Your task to perform on an android device: open chrome and create a bookmark for the current page Image 0: 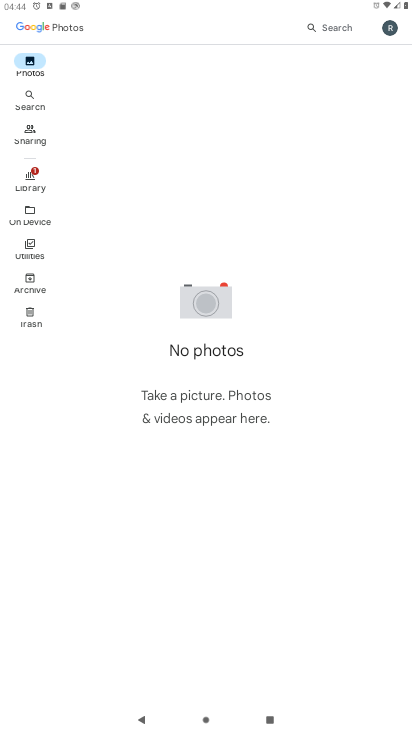
Step 0: press home button
Your task to perform on an android device: open chrome and create a bookmark for the current page Image 1: 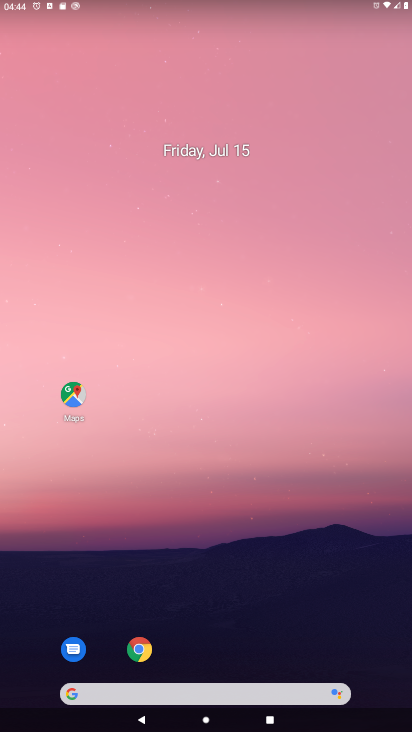
Step 1: click (138, 650)
Your task to perform on an android device: open chrome and create a bookmark for the current page Image 2: 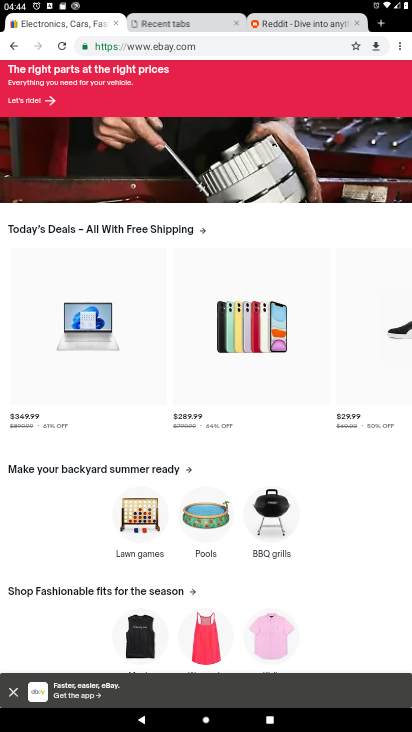
Step 2: click (398, 48)
Your task to perform on an android device: open chrome and create a bookmark for the current page Image 3: 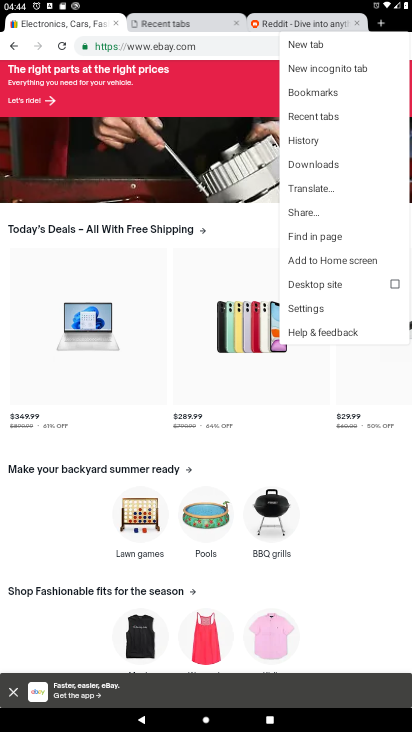
Step 3: click (248, 40)
Your task to perform on an android device: open chrome and create a bookmark for the current page Image 4: 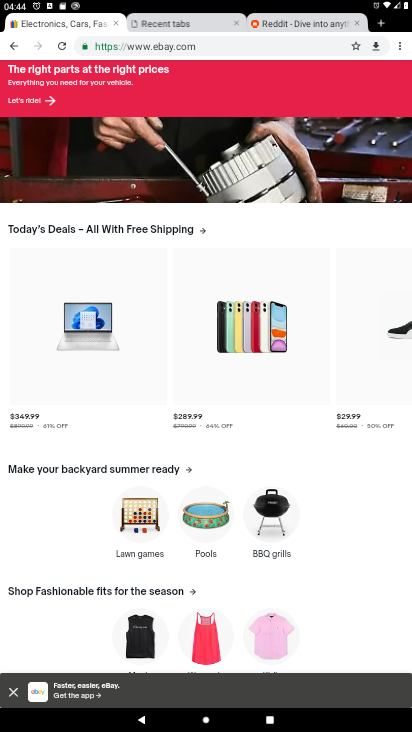
Step 4: click (353, 45)
Your task to perform on an android device: open chrome and create a bookmark for the current page Image 5: 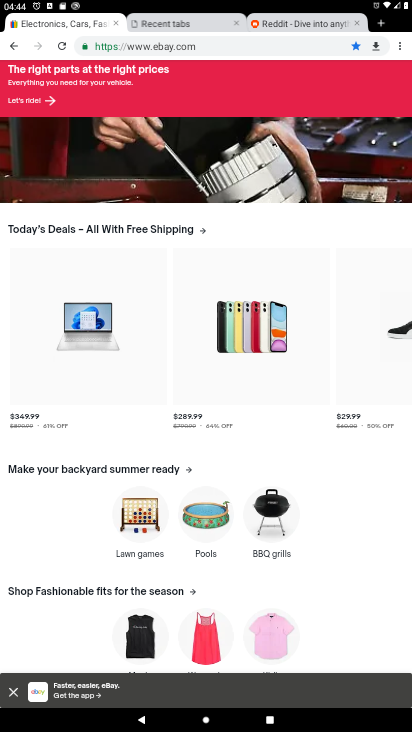
Step 5: task complete